Your task to perform on an android device: Search for sushi restaurants on Maps Image 0: 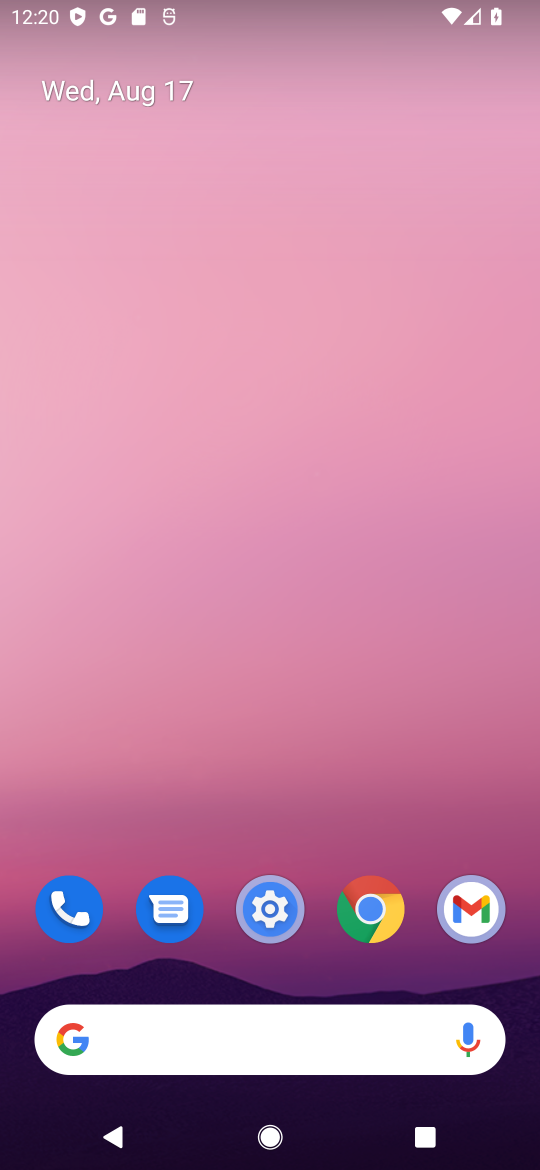
Step 0: drag from (308, 821) to (307, 95)
Your task to perform on an android device: Search for sushi restaurants on Maps Image 1: 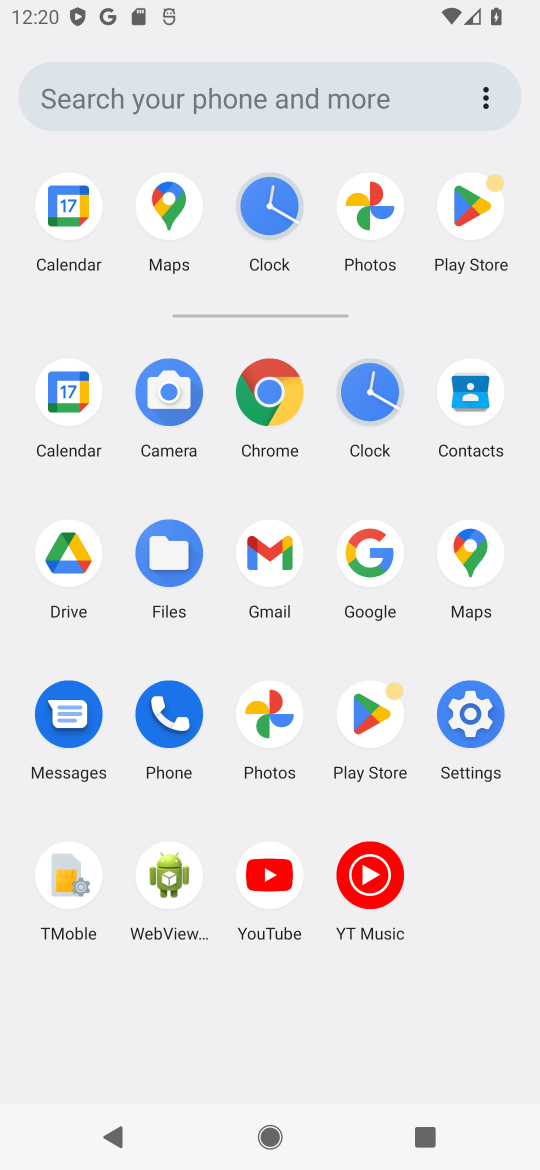
Step 1: click (474, 553)
Your task to perform on an android device: Search for sushi restaurants on Maps Image 2: 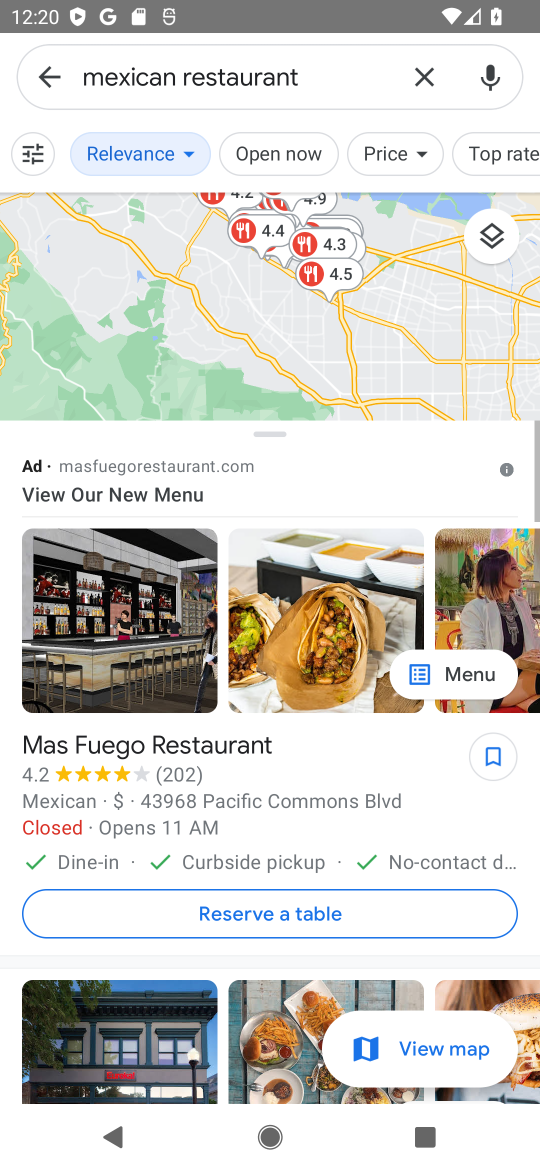
Step 2: click (419, 71)
Your task to perform on an android device: Search for sushi restaurants on Maps Image 3: 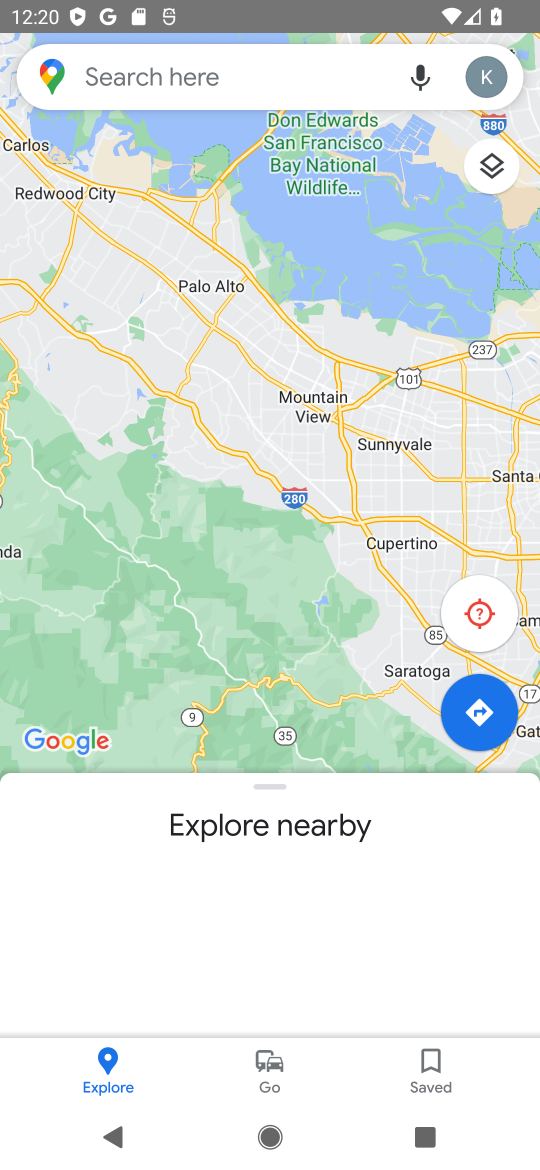
Step 3: click (299, 71)
Your task to perform on an android device: Search for sushi restaurants on Maps Image 4: 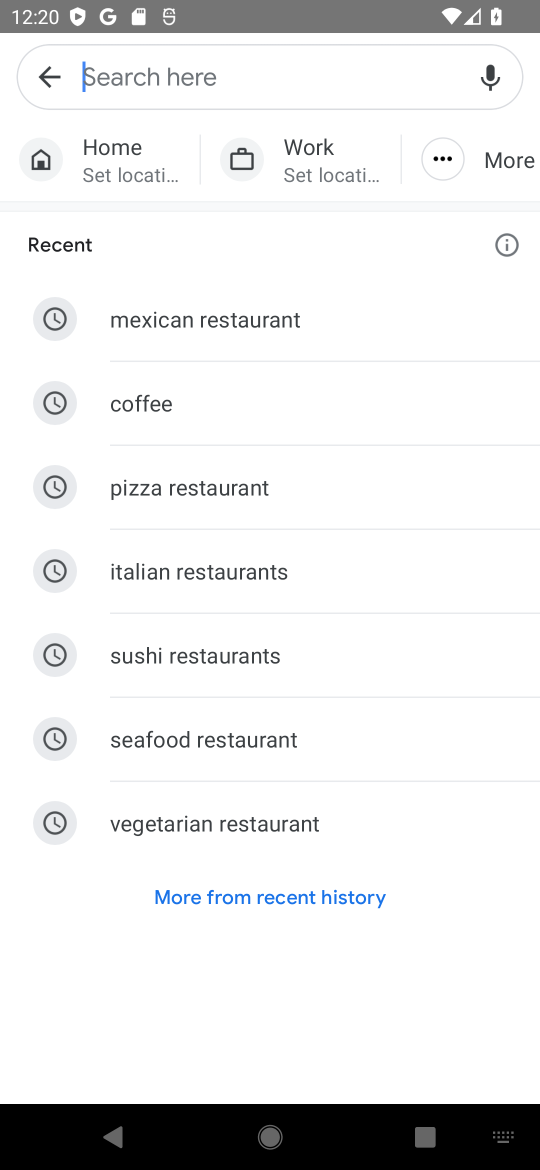
Step 4: click (192, 639)
Your task to perform on an android device: Search for sushi restaurants on Maps Image 5: 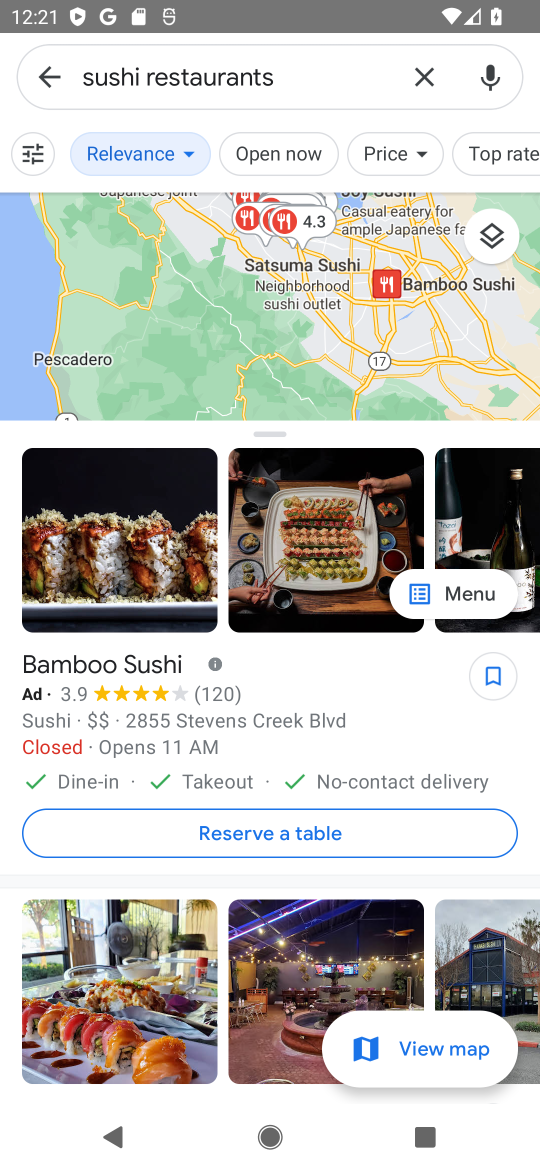
Step 5: task complete